Your task to perform on an android device: star an email in the gmail app Image 0: 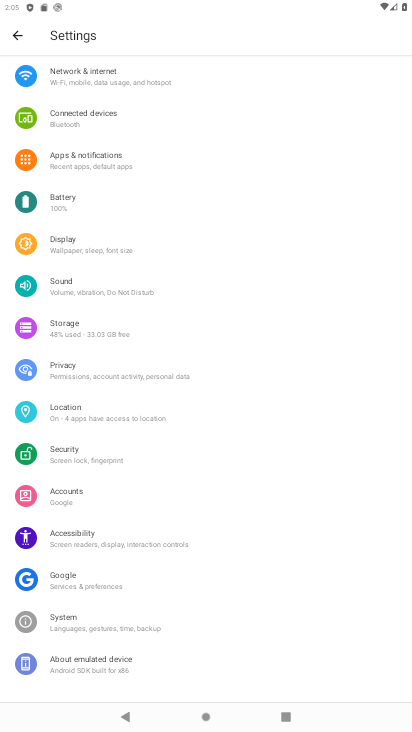
Step 0: press home button
Your task to perform on an android device: star an email in the gmail app Image 1: 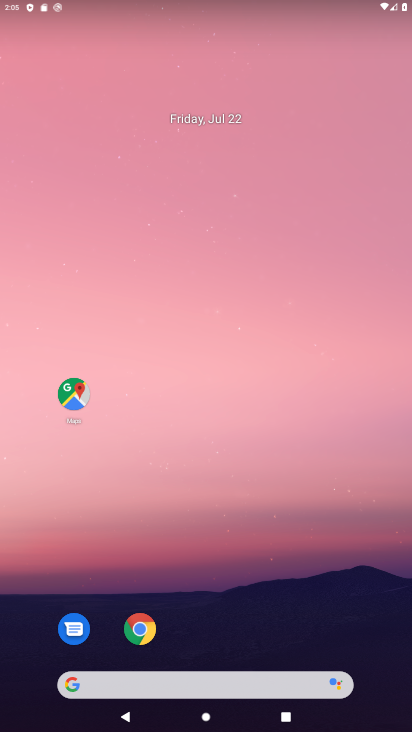
Step 1: drag from (227, 647) to (120, 142)
Your task to perform on an android device: star an email in the gmail app Image 2: 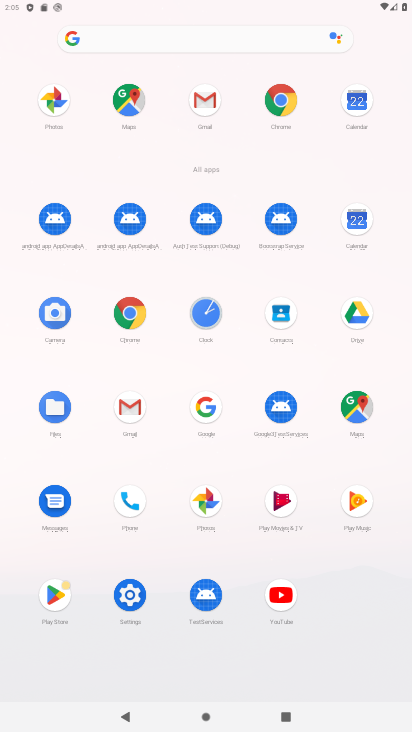
Step 2: click (198, 105)
Your task to perform on an android device: star an email in the gmail app Image 3: 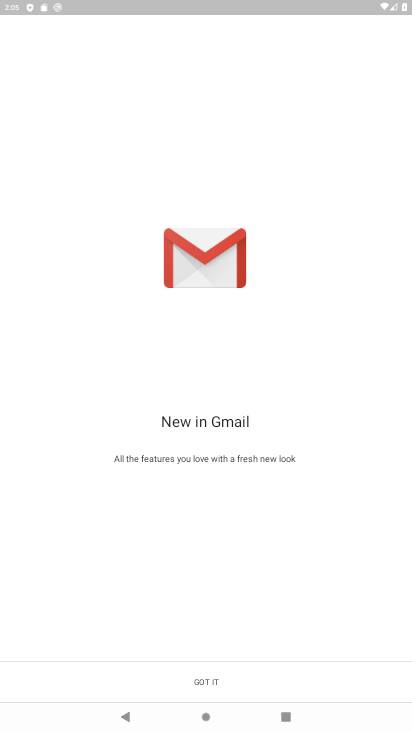
Step 3: click (205, 672)
Your task to perform on an android device: star an email in the gmail app Image 4: 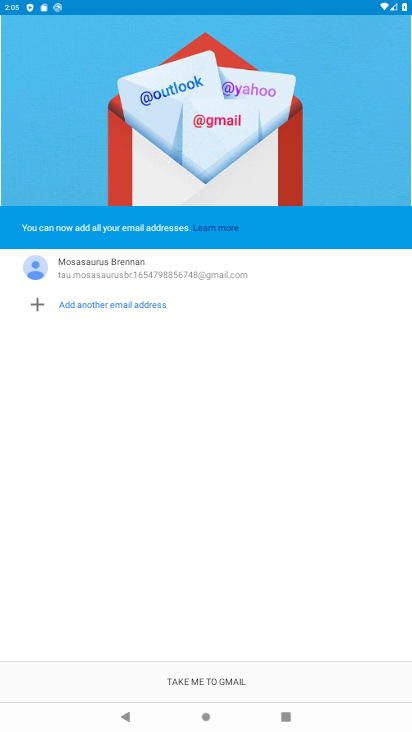
Step 4: click (205, 685)
Your task to perform on an android device: star an email in the gmail app Image 5: 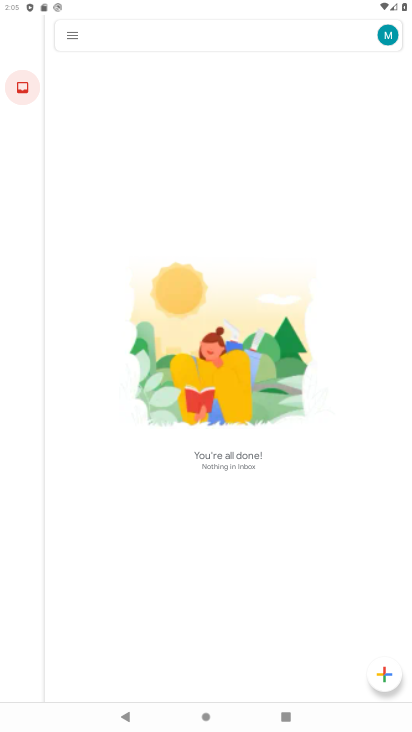
Step 5: click (73, 35)
Your task to perform on an android device: star an email in the gmail app Image 6: 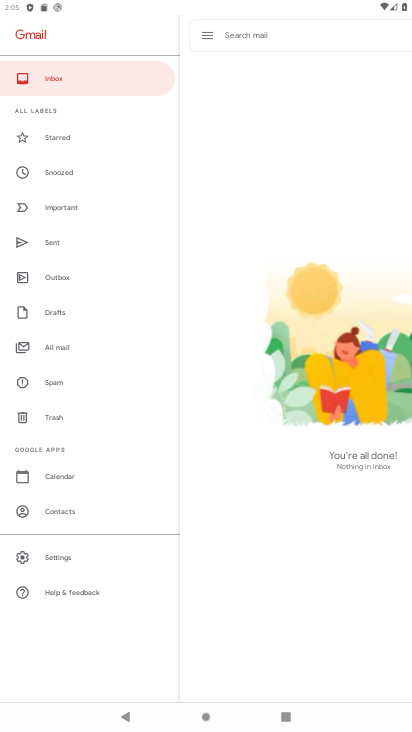
Step 6: click (56, 346)
Your task to perform on an android device: star an email in the gmail app Image 7: 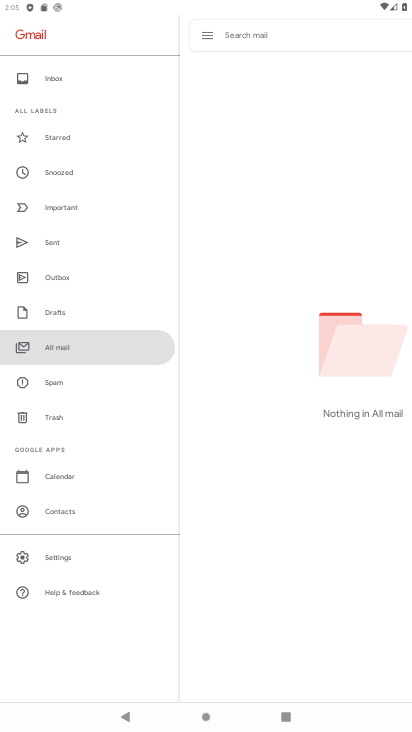
Step 7: task complete